Your task to perform on an android device: find photos in the google photos app Image 0: 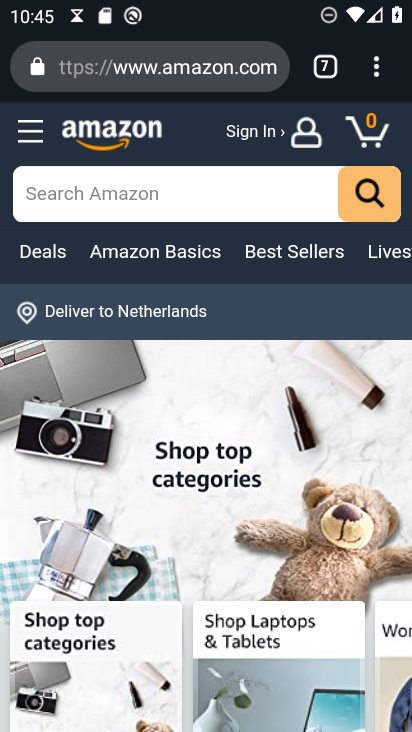
Step 0: press home button
Your task to perform on an android device: find photos in the google photos app Image 1: 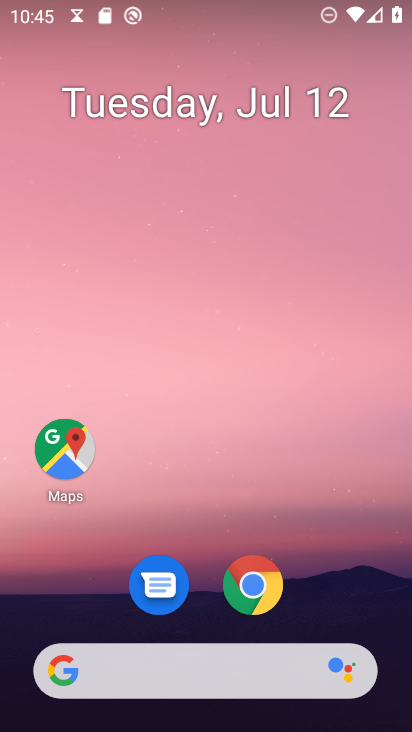
Step 1: drag from (221, 685) to (302, 4)
Your task to perform on an android device: find photos in the google photos app Image 2: 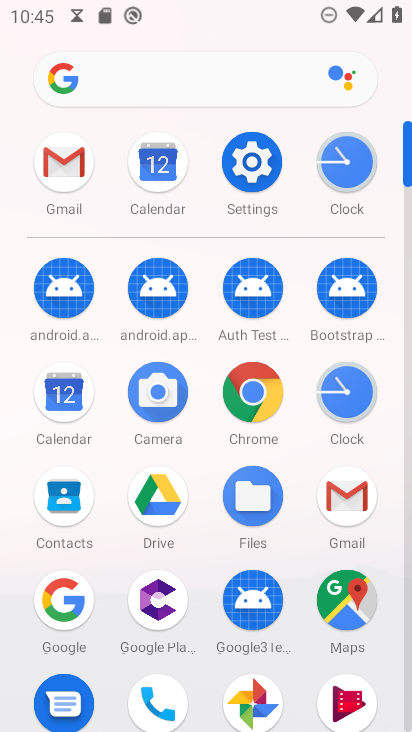
Step 2: click (254, 686)
Your task to perform on an android device: find photos in the google photos app Image 3: 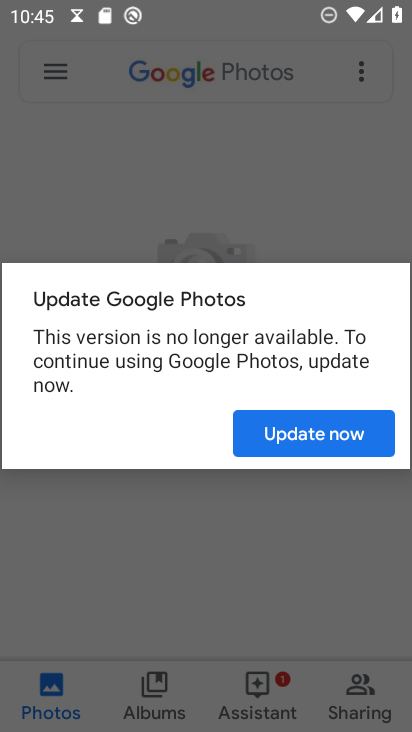
Step 3: click (293, 438)
Your task to perform on an android device: find photos in the google photos app Image 4: 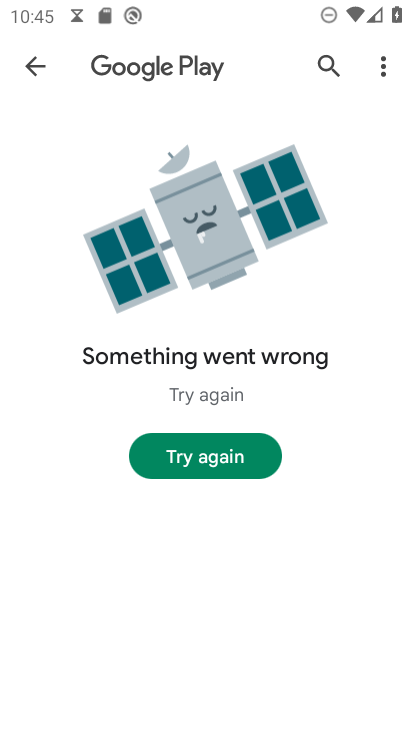
Step 4: click (200, 462)
Your task to perform on an android device: find photos in the google photos app Image 5: 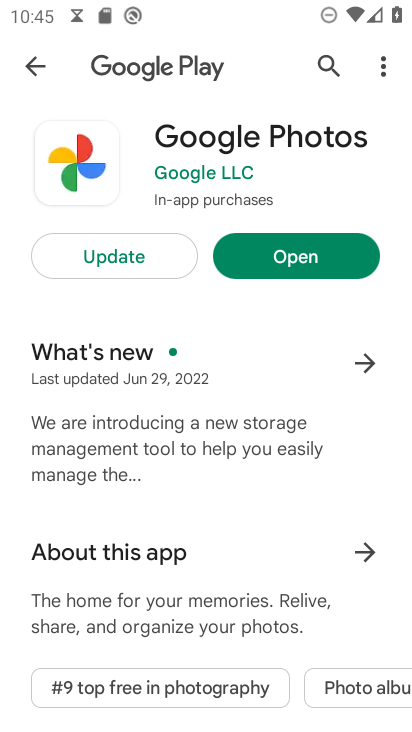
Step 5: click (301, 259)
Your task to perform on an android device: find photos in the google photos app Image 6: 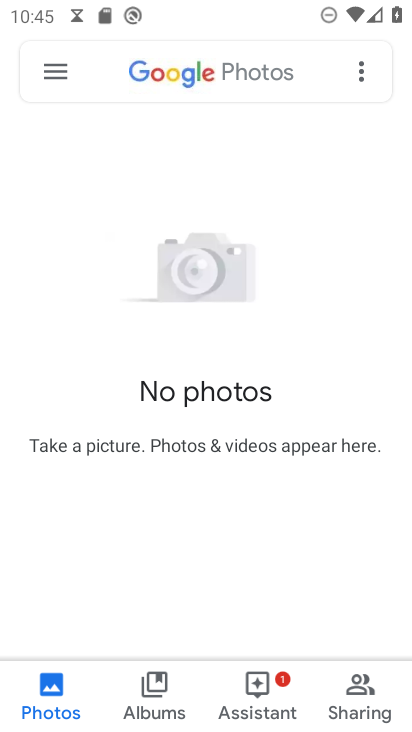
Step 6: task complete